Your task to perform on an android device: turn on airplane mode Image 0: 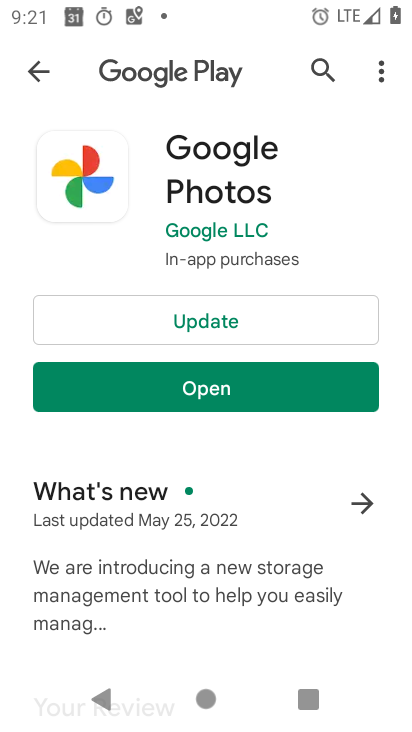
Step 0: press home button
Your task to perform on an android device: turn on airplane mode Image 1: 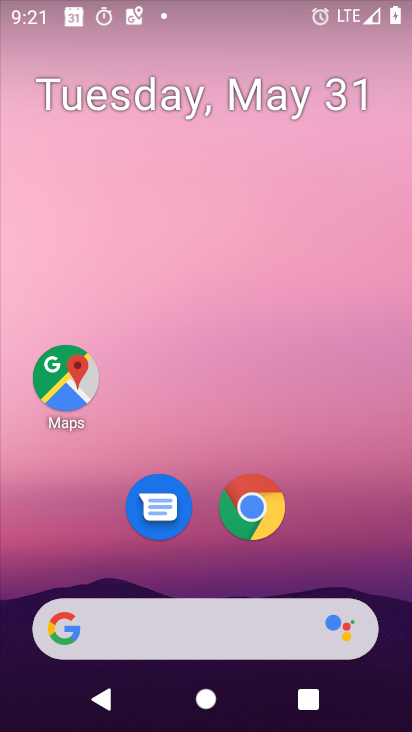
Step 1: drag from (24, 507) to (236, 145)
Your task to perform on an android device: turn on airplane mode Image 2: 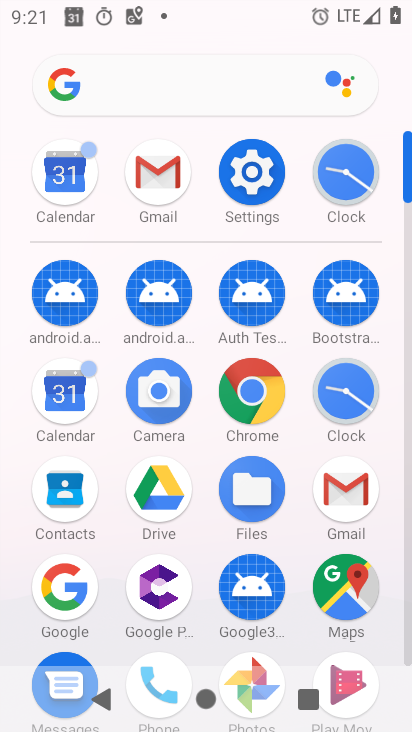
Step 2: click (239, 170)
Your task to perform on an android device: turn on airplane mode Image 3: 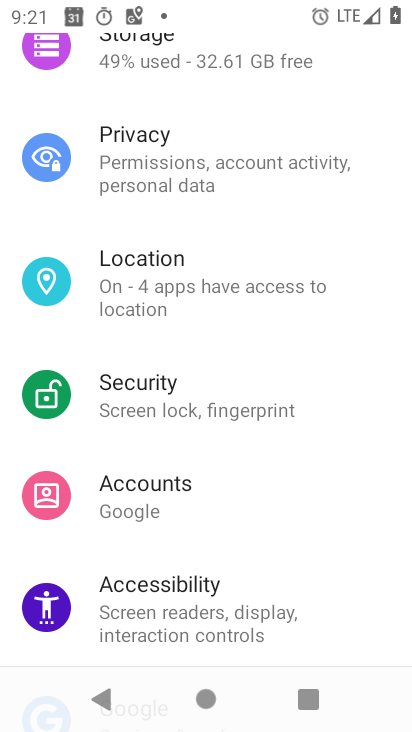
Step 3: drag from (76, 123) to (3, 379)
Your task to perform on an android device: turn on airplane mode Image 4: 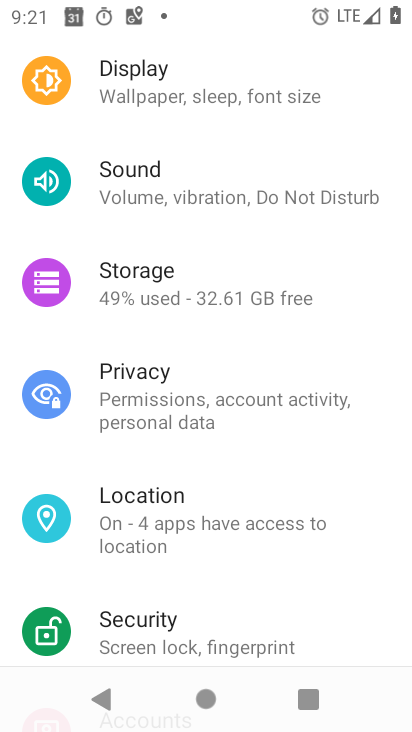
Step 4: drag from (121, 181) to (6, 664)
Your task to perform on an android device: turn on airplane mode Image 5: 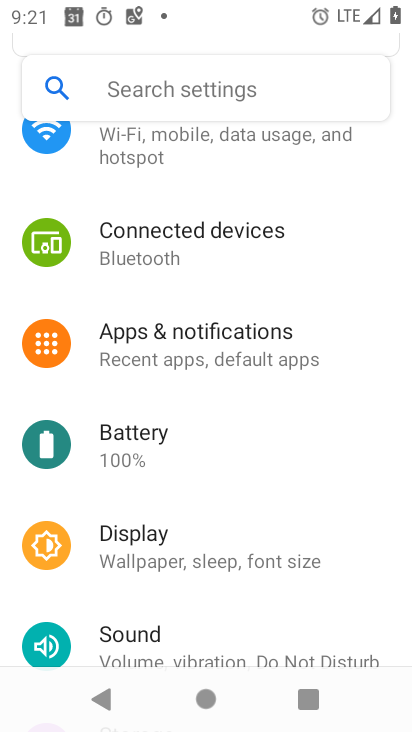
Step 5: drag from (130, 183) to (56, 535)
Your task to perform on an android device: turn on airplane mode Image 6: 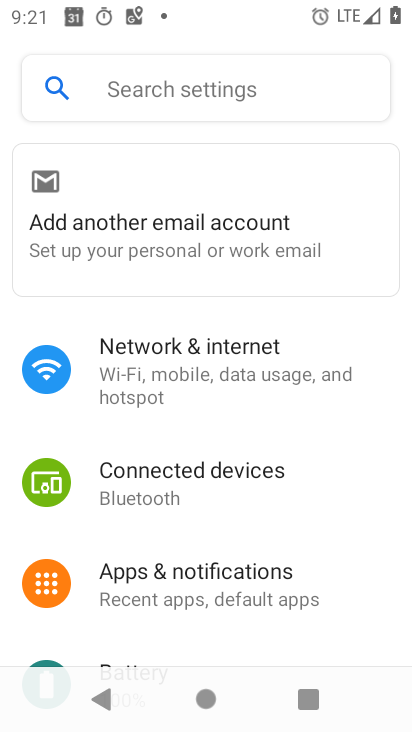
Step 6: click (156, 367)
Your task to perform on an android device: turn on airplane mode Image 7: 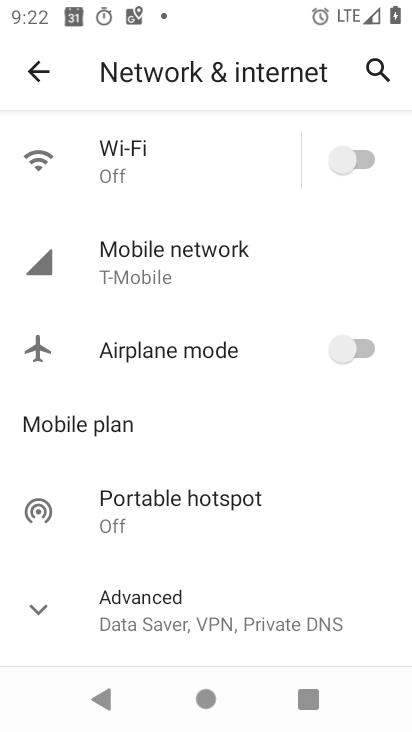
Step 7: click (337, 352)
Your task to perform on an android device: turn on airplane mode Image 8: 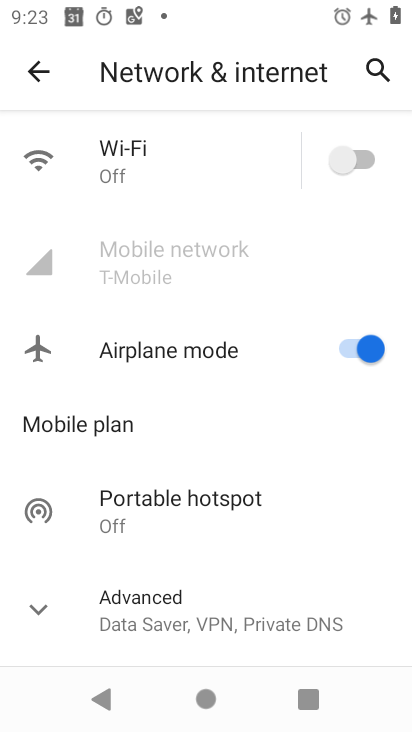
Step 8: task complete